Your task to perform on an android device: Is it going to rain this weekend? Image 0: 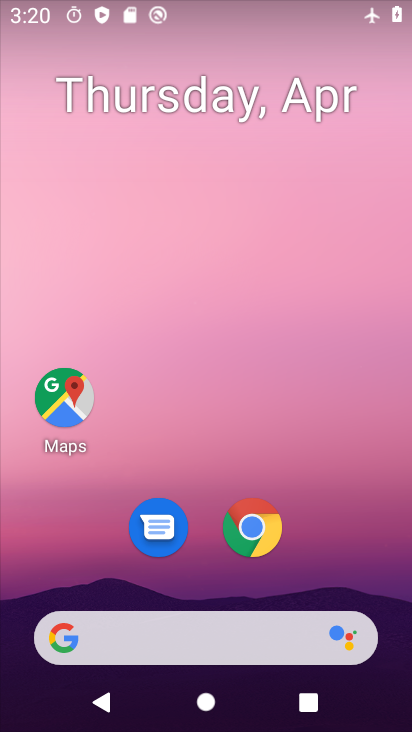
Step 0: drag from (307, 559) to (317, 199)
Your task to perform on an android device: Is it going to rain this weekend? Image 1: 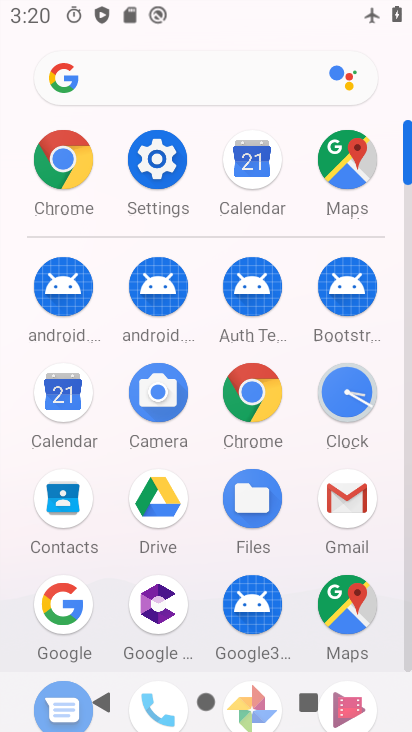
Step 1: click (250, 393)
Your task to perform on an android device: Is it going to rain this weekend? Image 2: 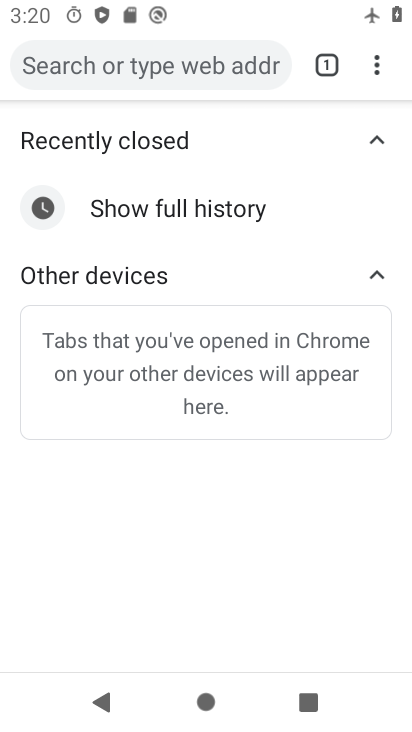
Step 2: click (185, 74)
Your task to perform on an android device: Is it going to rain this weekend? Image 3: 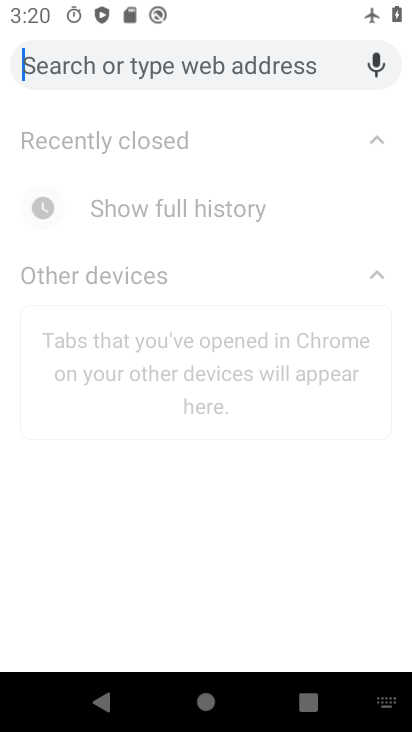
Step 3: type "weather"
Your task to perform on an android device: Is it going to rain this weekend? Image 4: 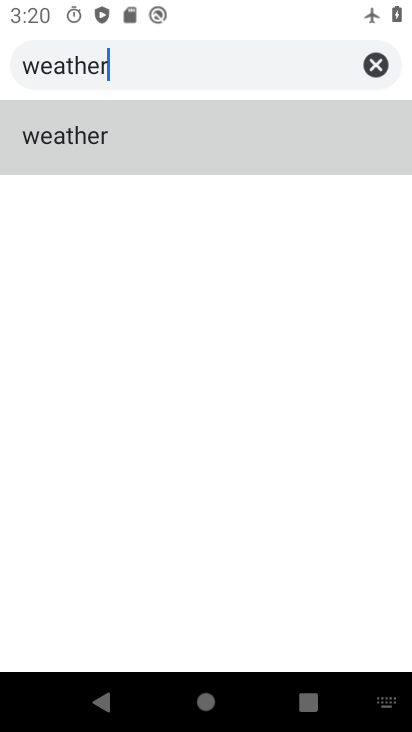
Step 4: click (40, 131)
Your task to perform on an android device: Is it going to rain this weekend? Image 5: 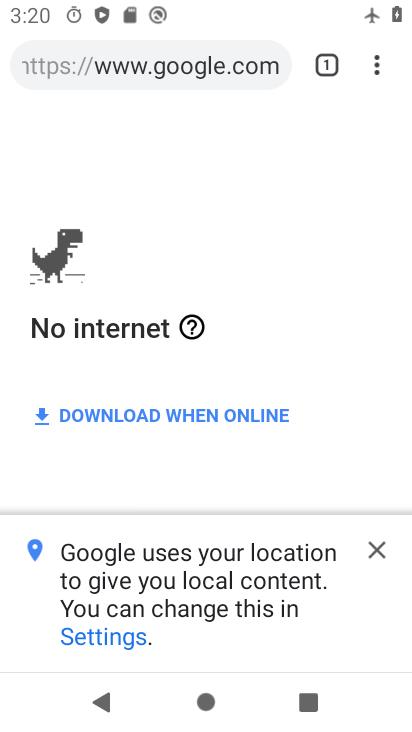
Step 5: task complete